Your task to perform on an android device: Search for Italian restaurants on Maps Image 0: 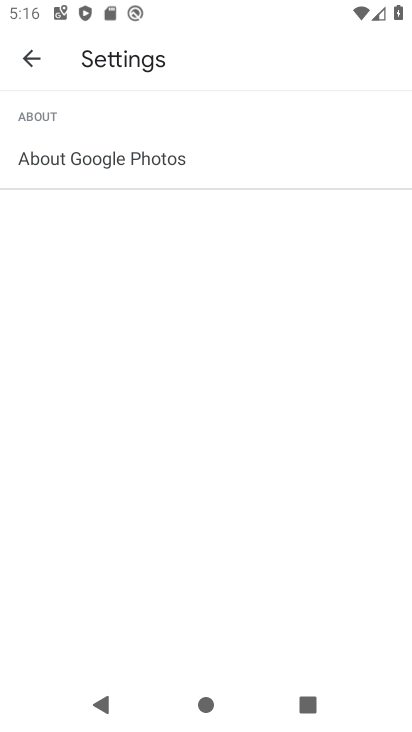
Step 0: press home button
Your task to perform on an android device: Search for Italian restaurants on Maps Image 1: 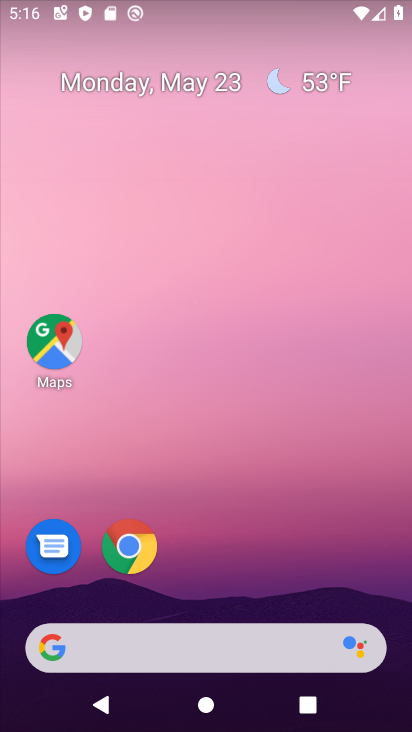
Step 1: click (59, 350)
Your task to perform on an android device: Search for Italian restaurants on Maps Image 2: 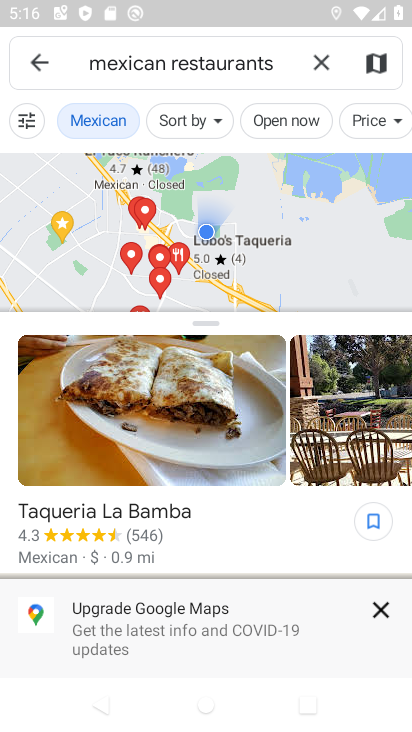
Step 2: click (319, 58)
Your task to perform on an android device: Search for Italian restaurants on Maps Image 3: 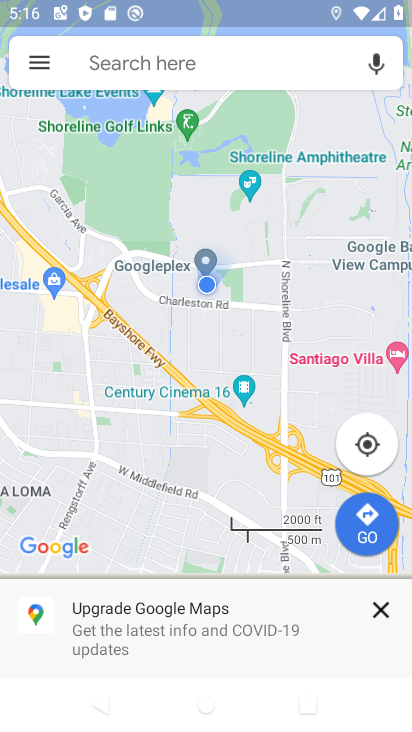
Step 3: click (247, 62)
Your task to perform on an android device: Search for Italian restaurants on Maps Image 4: 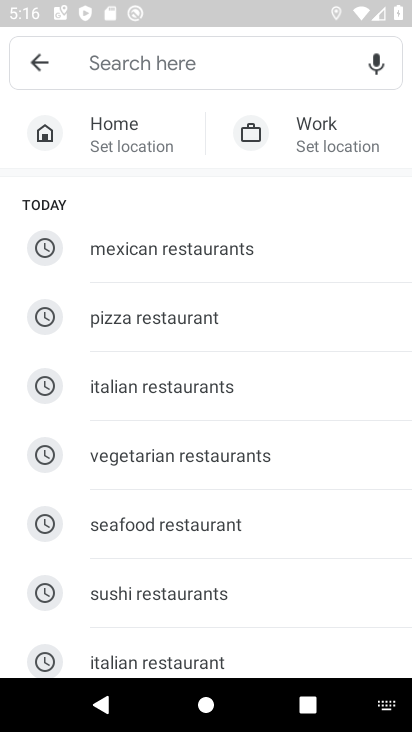
Step 4: click (183, 389)
Your task to perform on an android device: Search for Italian restaurants on Maps Image 5: 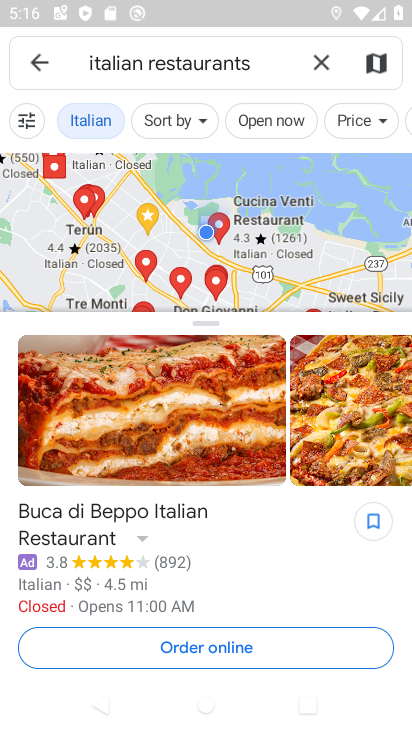
Step 5: task complete